Your task to perform on an android device: find photos in the google photos app Image 0: 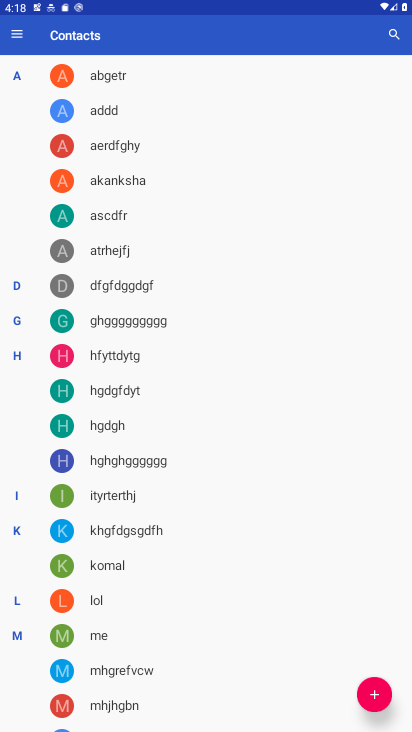
Step 0: press home button
Your task to perform on an android device: find photos in the google photos app Image 1: 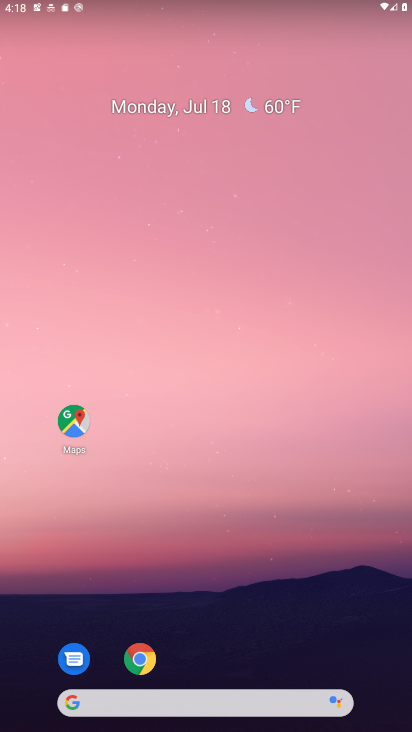
Step 1: drag from (296, 606) to (262, 36)
Your task to perform on an android device: find photos in the google photos app Image 2: 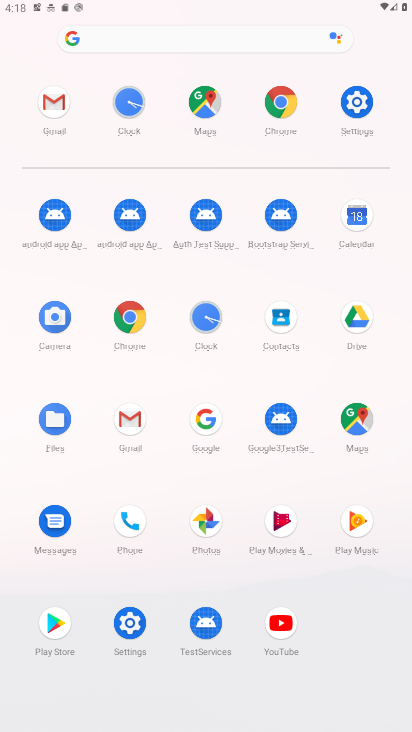
Step 2: click (209, 526)
Your task to perform on an android device: find photos in the google photos app Image 3: 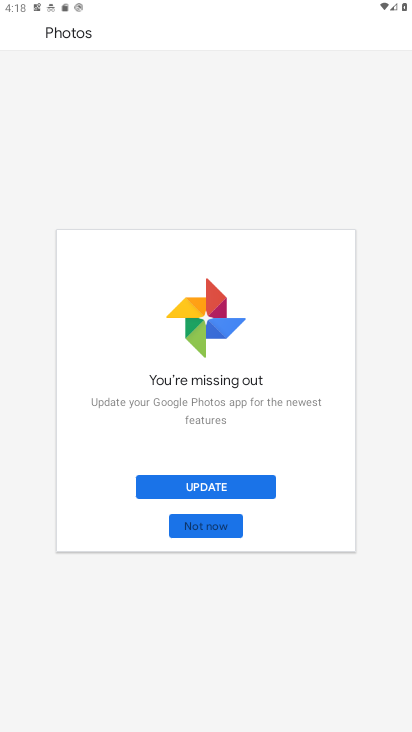
Step 3: click (233, 491)
Your task to perform on an android device: find photos in the google photos app Image 4: 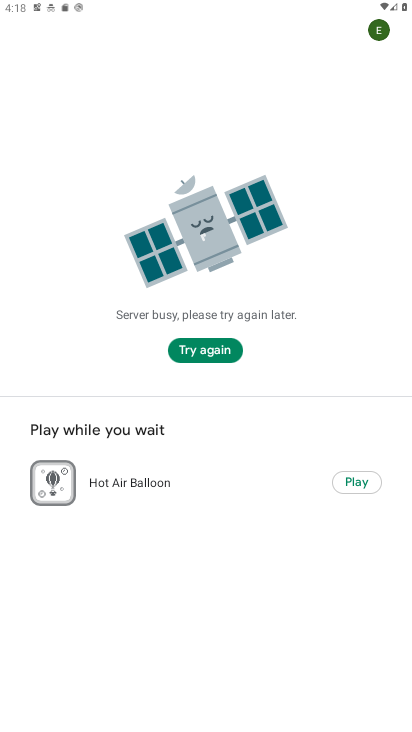
Step 4: task complete